Your task to perform on an android device: set the timer Image 0: 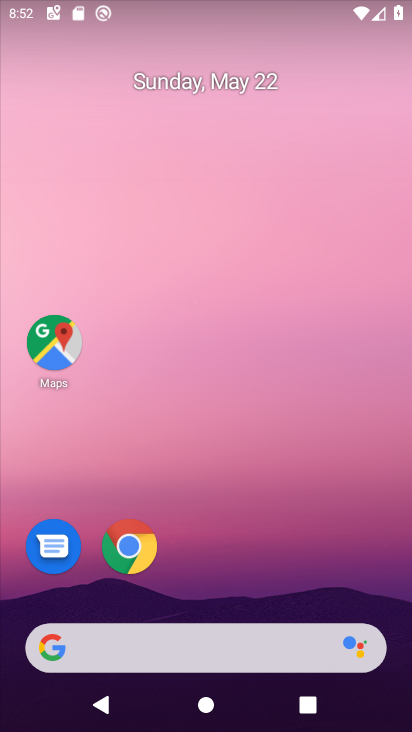
Step 0: drag from (359, 592) to (328, 191)
Your task to perform on an android device: set the timer Image 1: 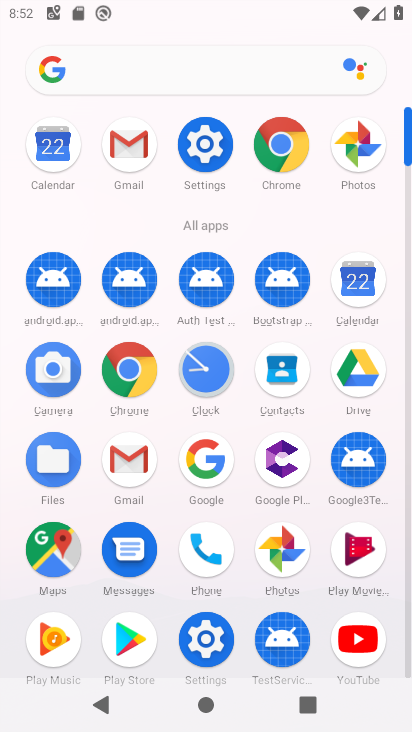
Step 1: click (208, 371)
Your task to perform on an android device: set the timer Image 2: 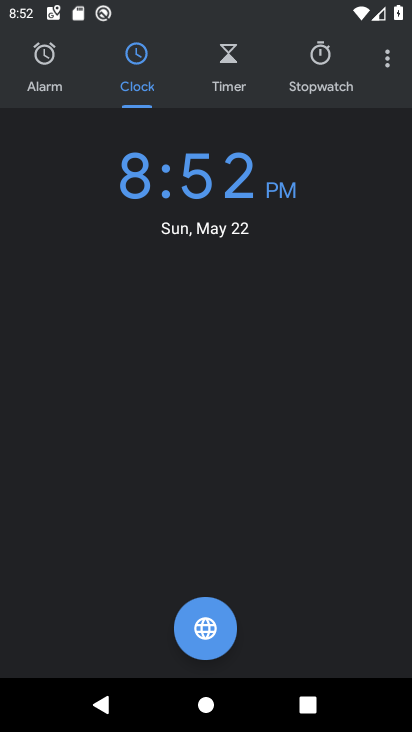
Step 2: click (229, 67)
Your task to perform on an android device: set the timer Image 3: 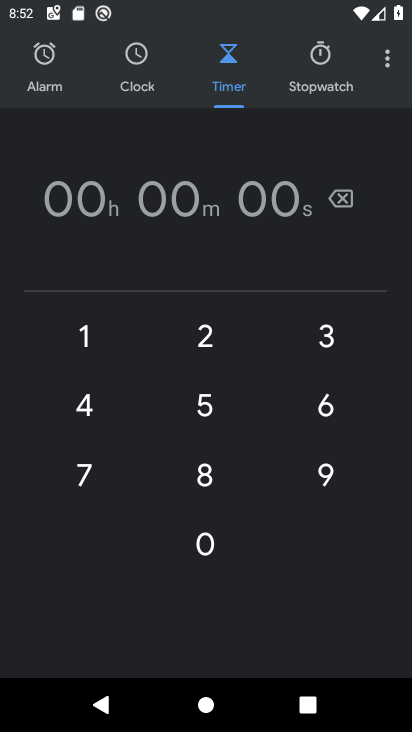
Step 3: task complete